Your task to perform on an android device: turn off smart reply in the gmail app Image 0: 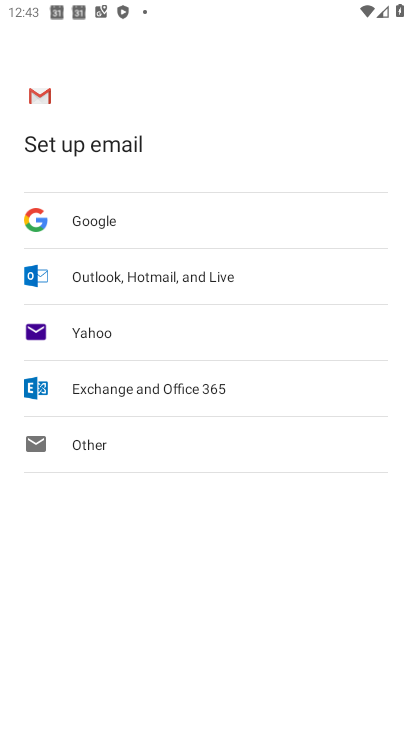
Step 0: press home button
Your task to perform on an android device: turn off smart reply in the gmail app Image 1: 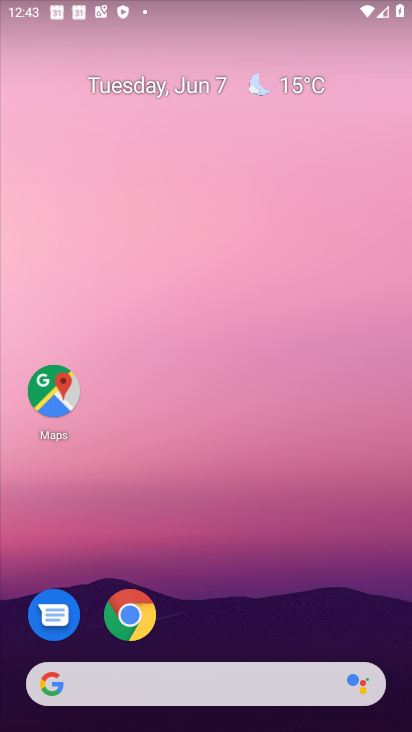
Step 1: drag from (193, 643) to (163, 128)
Your task to perform on an android device: turn off smart reply in the gmail app Image 2: 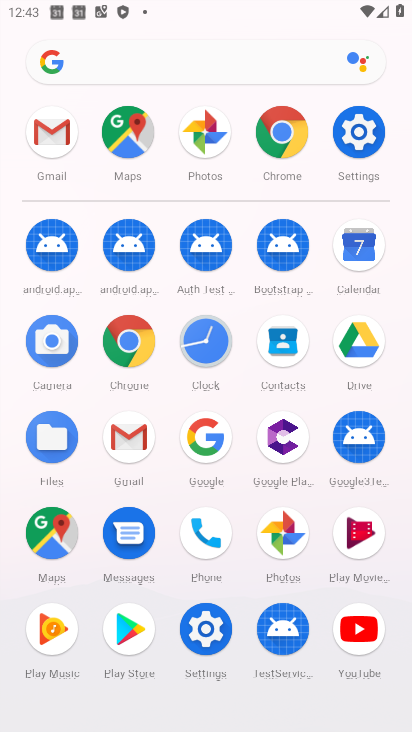
Step 2: click (47, 142)
Your task to perform on an android device: turn off smart reply in the gmail app Image 3: 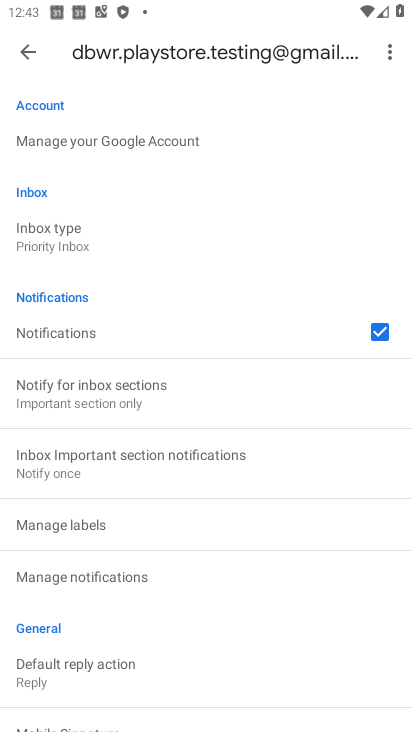
Step 3: drag from (222, 617) to (219, 161)
Your task to perform on an android device: turn off smart reply in the gmail app Image 4: 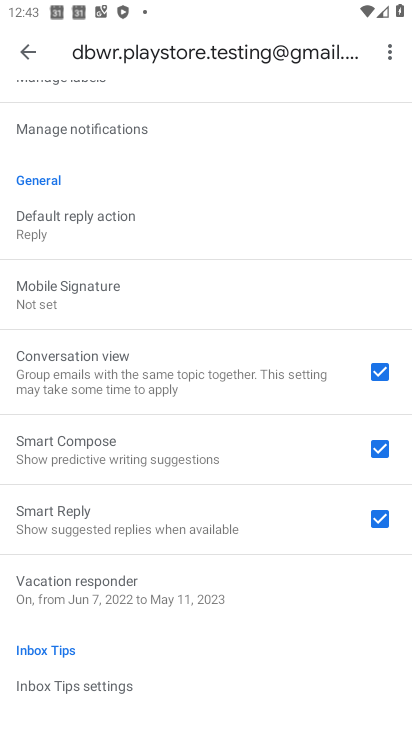
Step 4: click (371, 521)
Your task to perform on an android device: turn off smart reply in the gmail app Image 5: 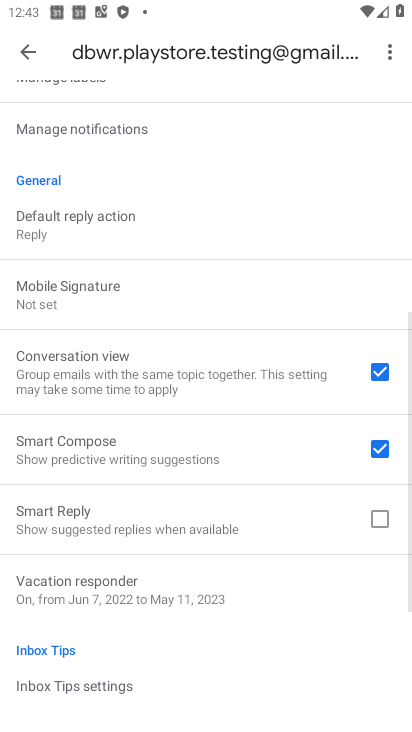
Step 5: task complete